Your task to perform on an android device: Open Google Maps Image 0: 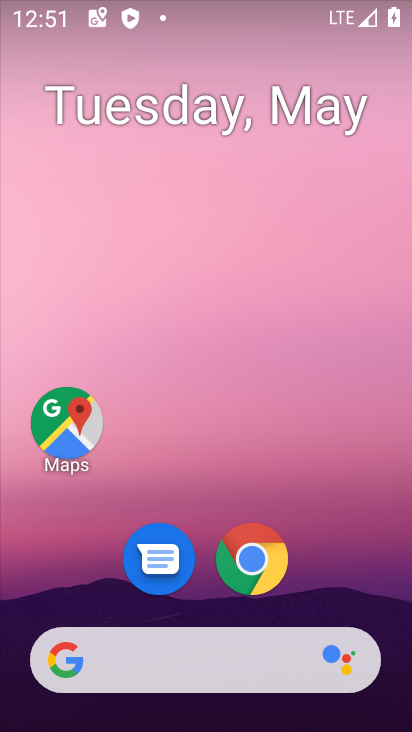
Step 0: click (56, 434)
Your task to perform on an android device: Open Google Maps Image 1: 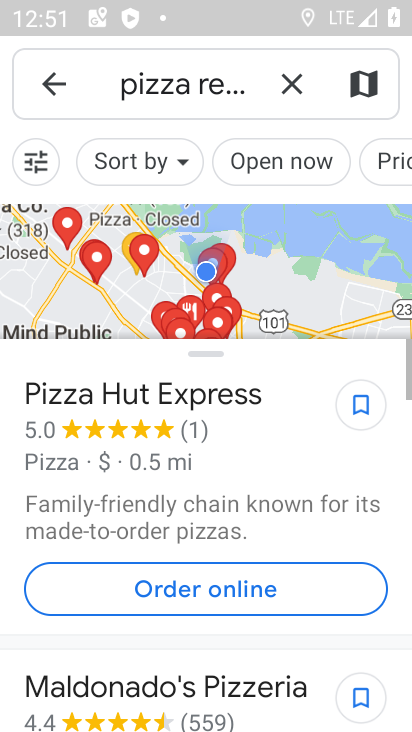
Step 1: task complete